Your task to perform on an android device: What's the weather? Image 0: 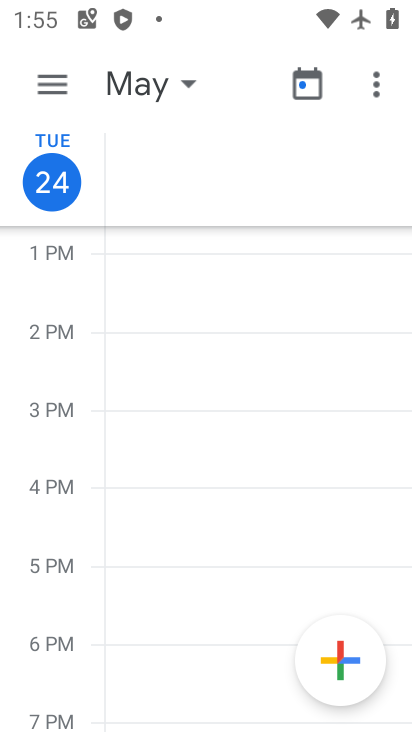
Step 0: press home button
Your task to perform on an android device: What's the weather? Image 1: 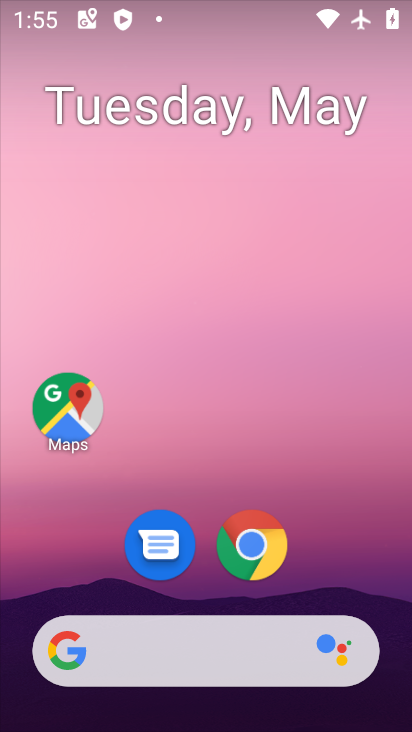
Step 1: click (129, 638)
Your task to perform on an android device: What's the weather? Image 2: 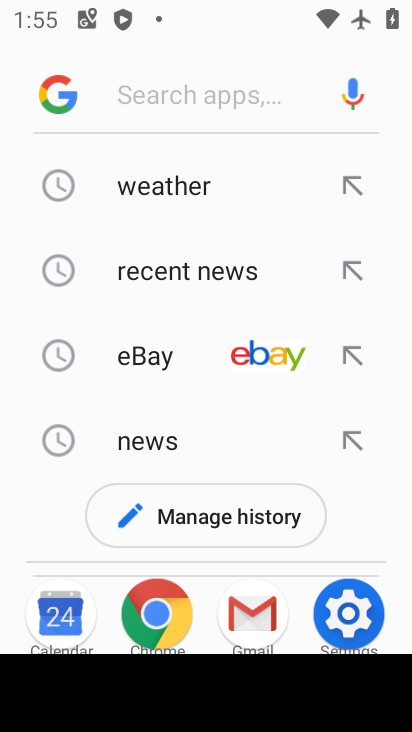
Step 2: click (166, 192)
Your task to perform on an android device: What's the weather? Image 3: 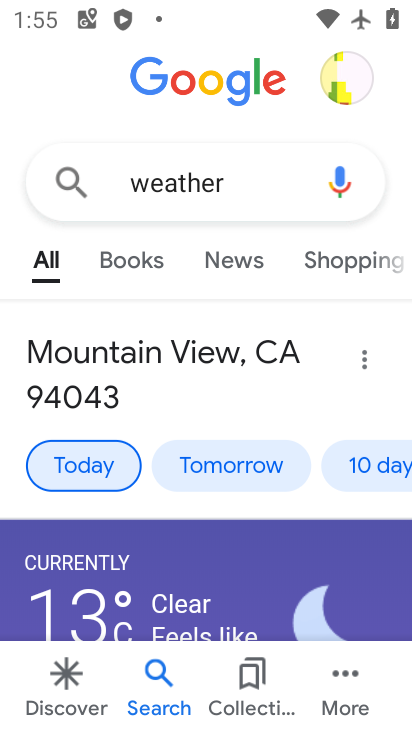
Step 3: task complete